Your task to perform on an android device: Check out the new nike air max 2020. Image 0: 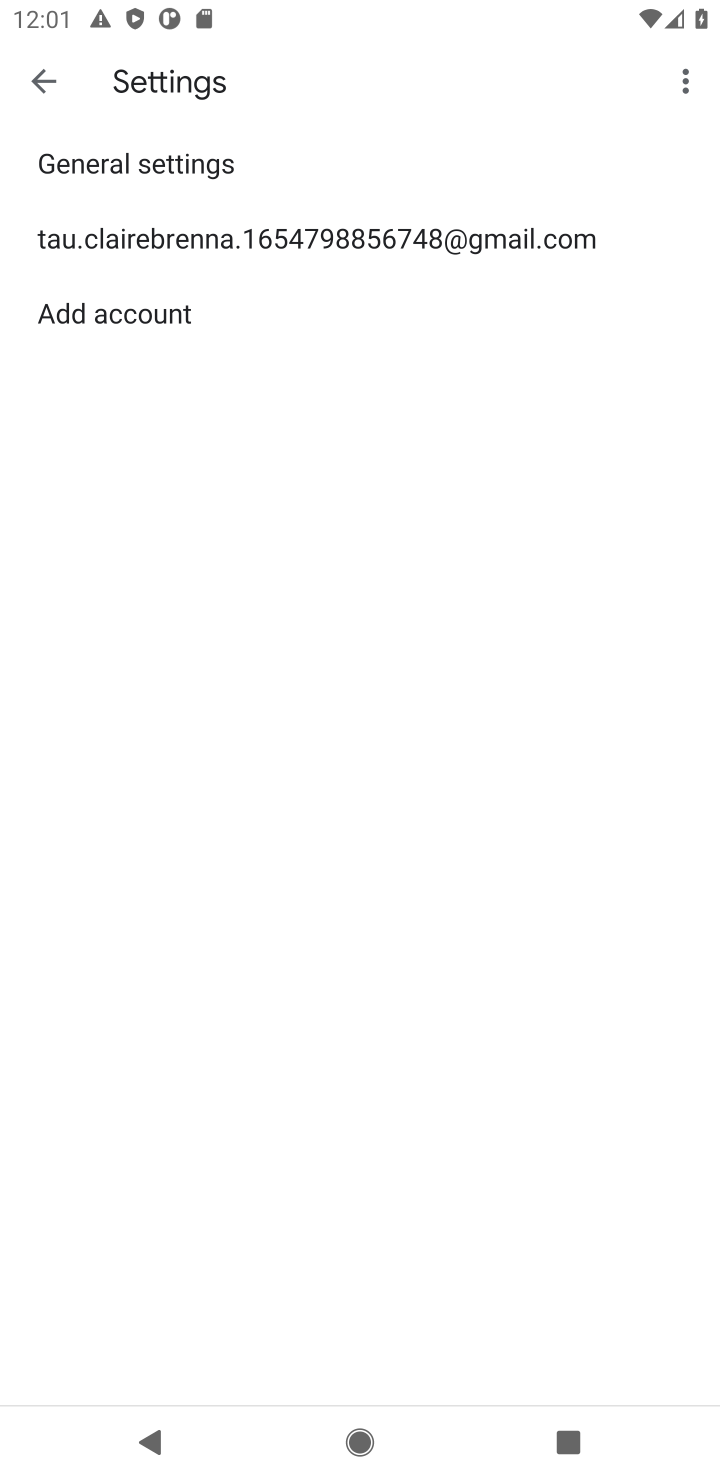
Step 0: press home button
Your task to perform on an android device: Check out the new nike air max 2020. Image 1: 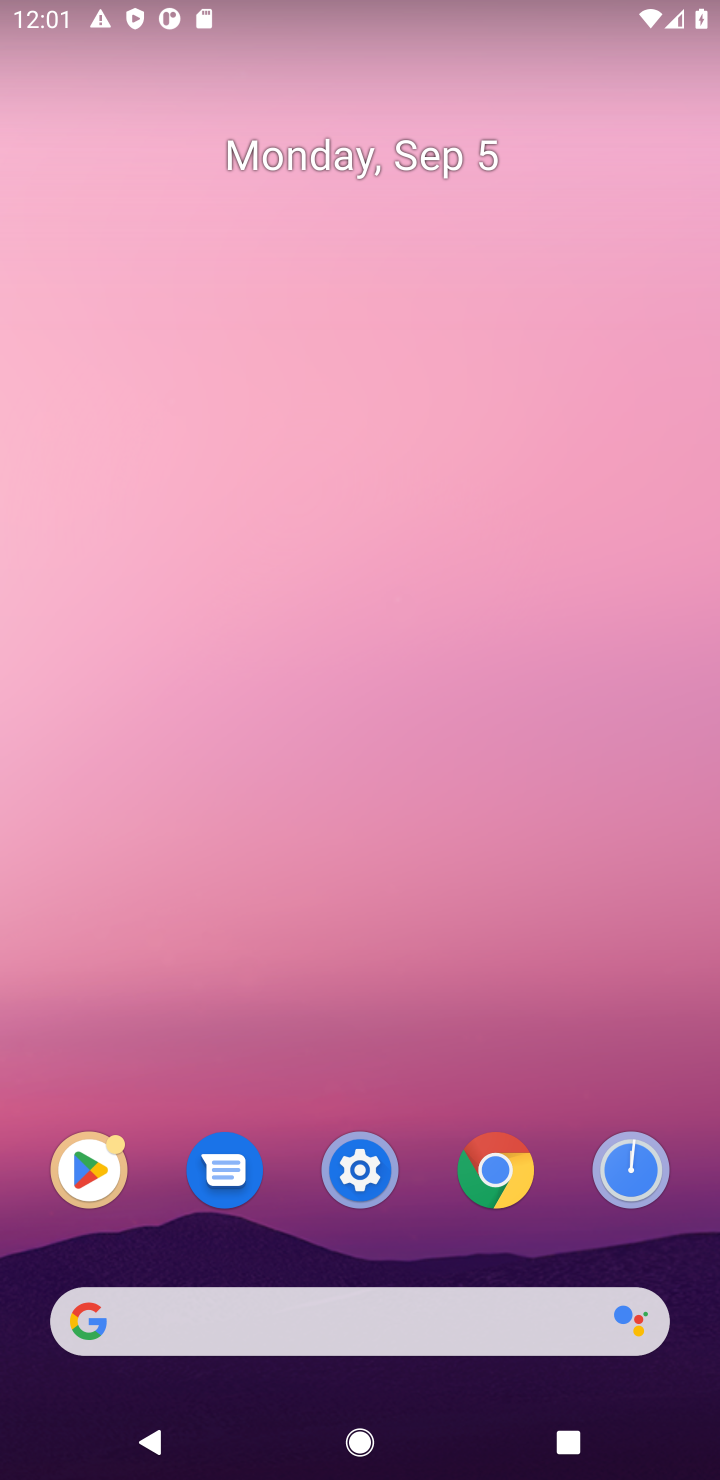
Step 1: click (453, 1289)
Your task to perform on an android device: Check out the new nike air max 2020. Image 2: 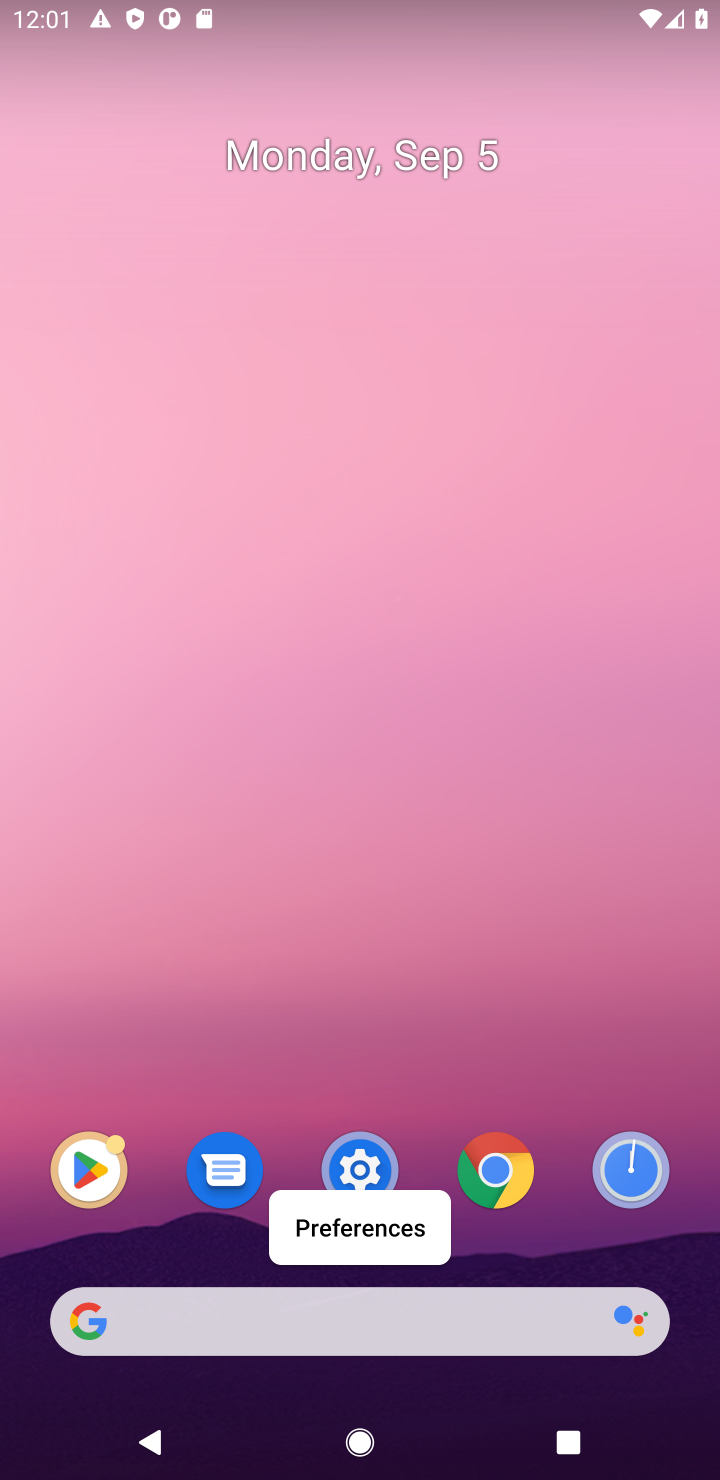
Step 2: click (359, 1297)
Your task to perform on an android device: Check out the new nike air max 2020. Image 3: 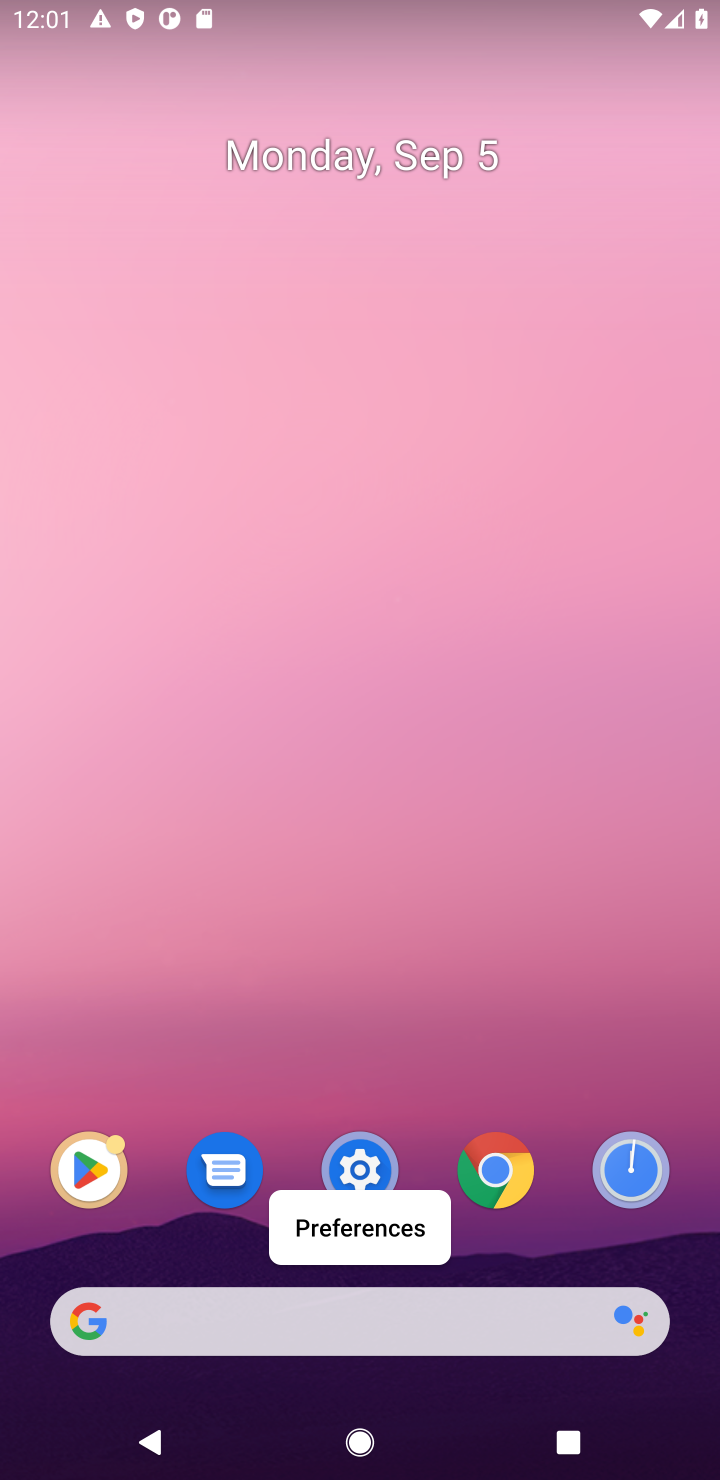
Step 3: click (372, 1321)
Your task to perform on an android device: Check out the new nike air max 2020. Image 4: 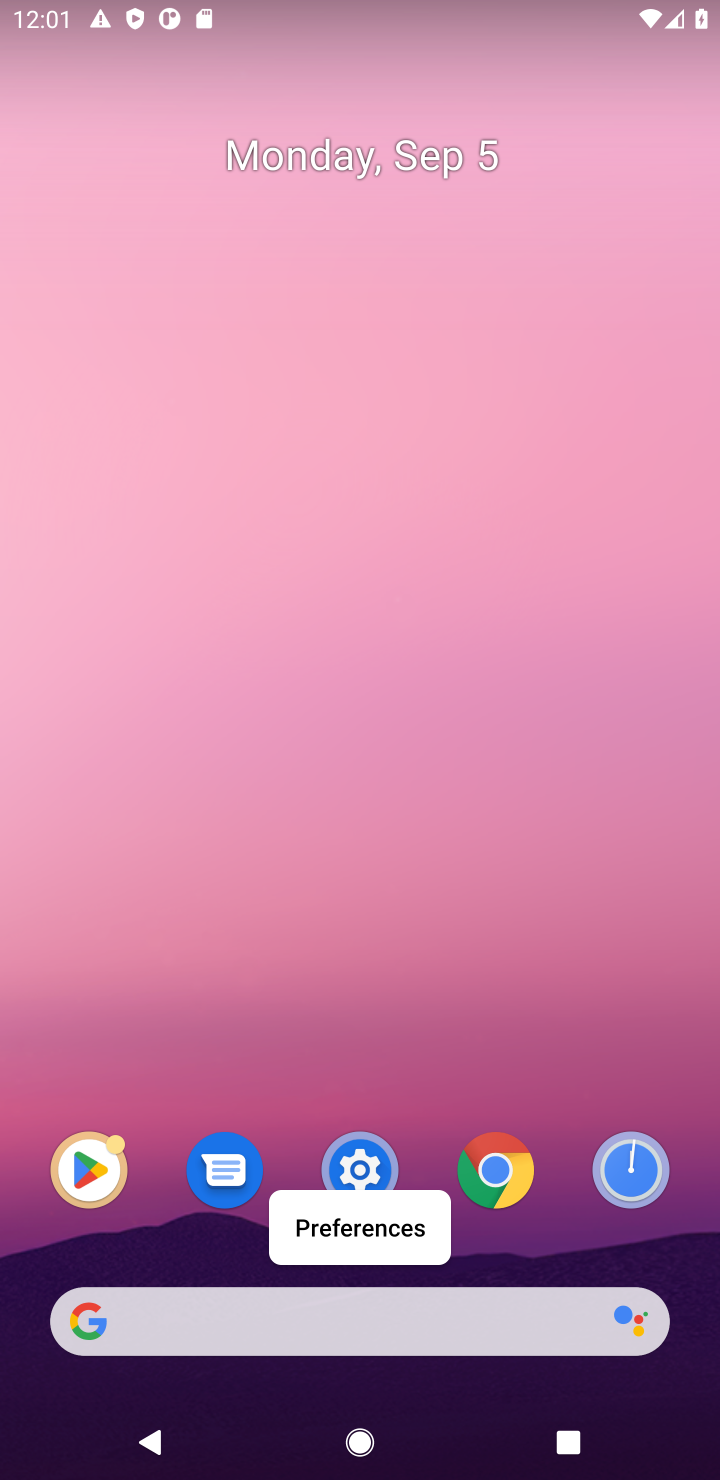
Step 4: click (372, 1321)
Your task to perform on an android device: Check out the new nike air max 2020. Image 5: 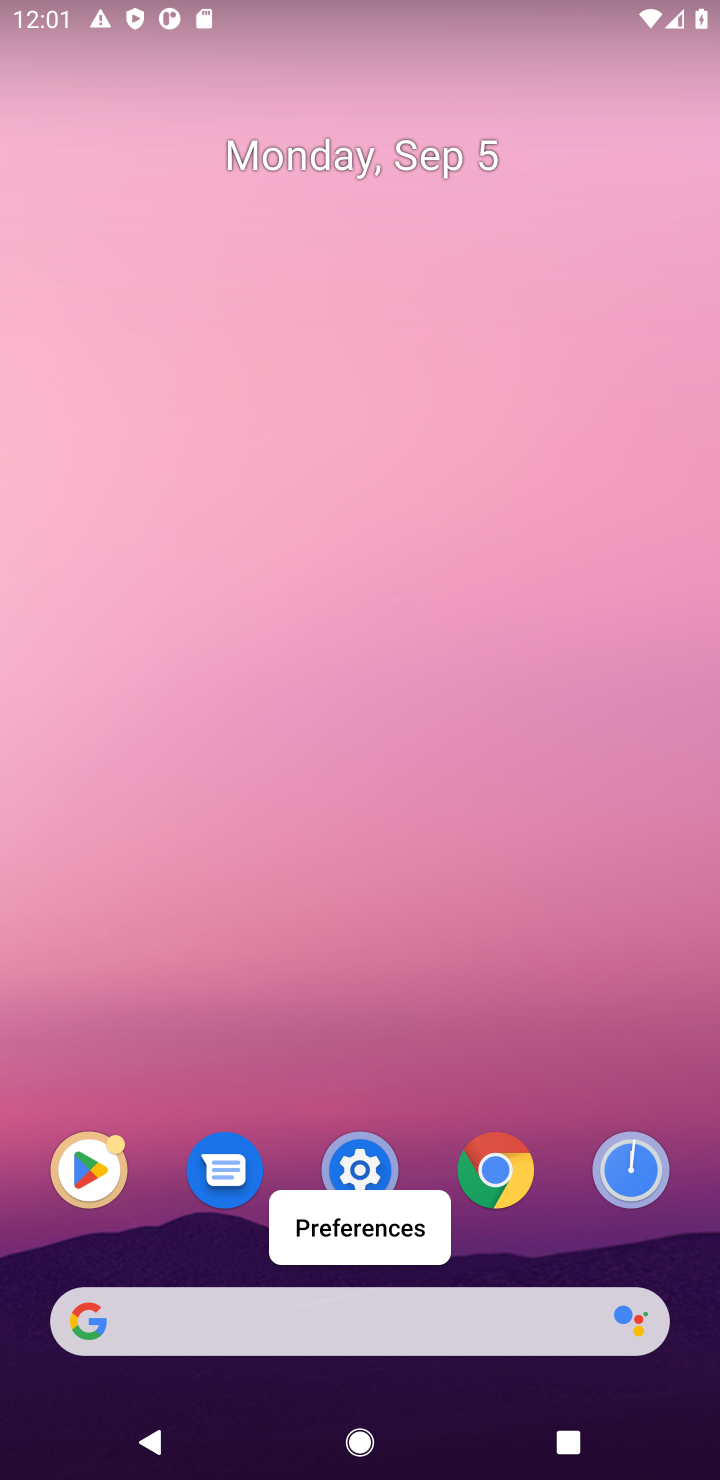
Step 5: click (372, 1320)
Your task to perform on an android device: Check out the new nike air max 2020. Image 6: 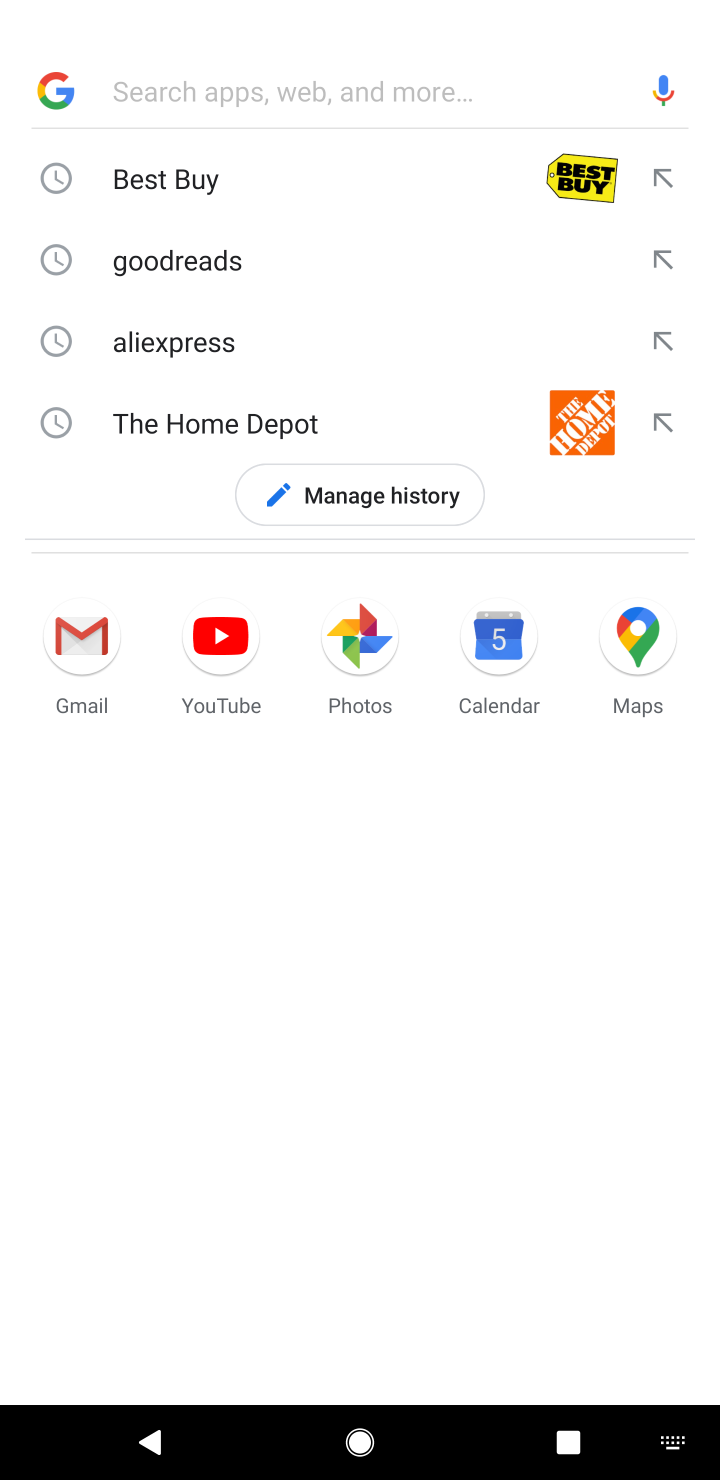
Step 6: type "new nike air max 2020"
Your task to perform on an android device: Check out the new nike air max 2020. Image 7: 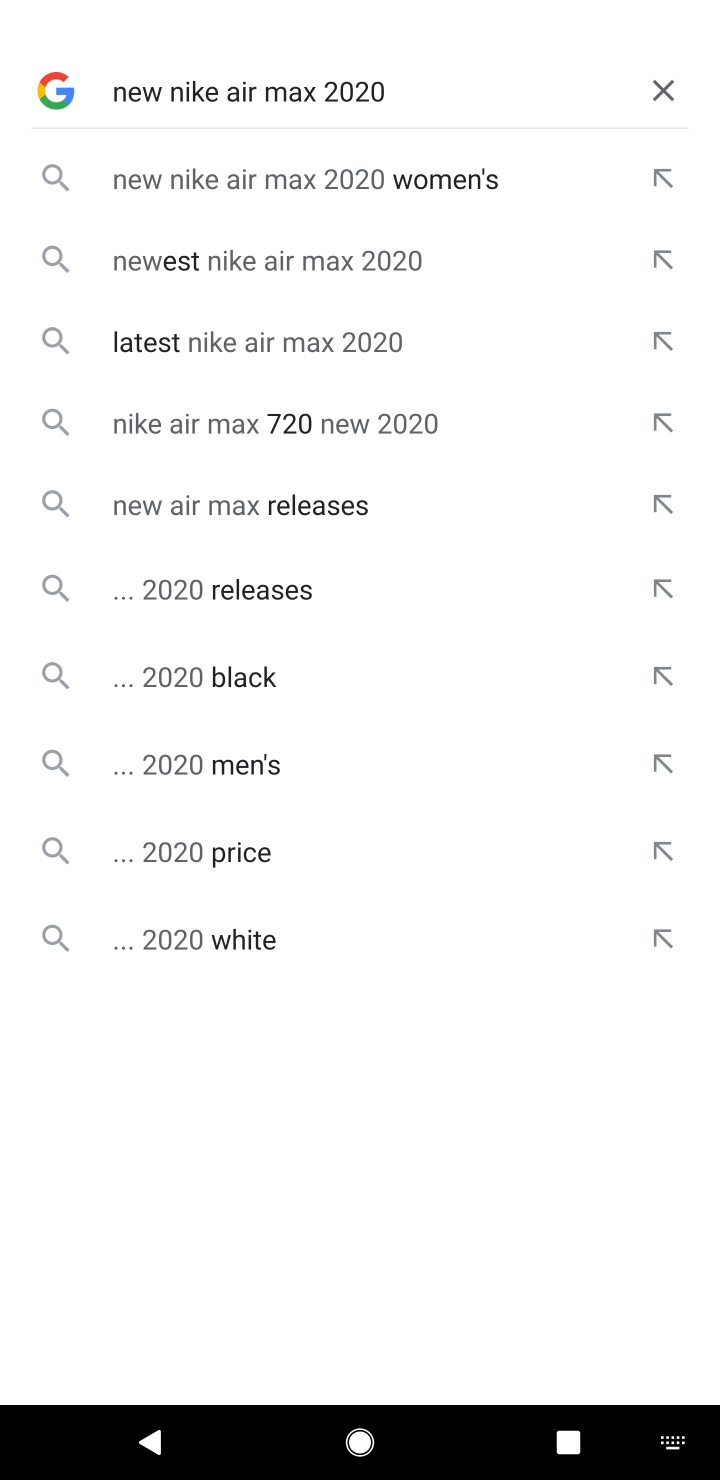
Step 7: click (358, 269)
Your task to perform on an android device: Check out the new nike air max 2020. Image 8: 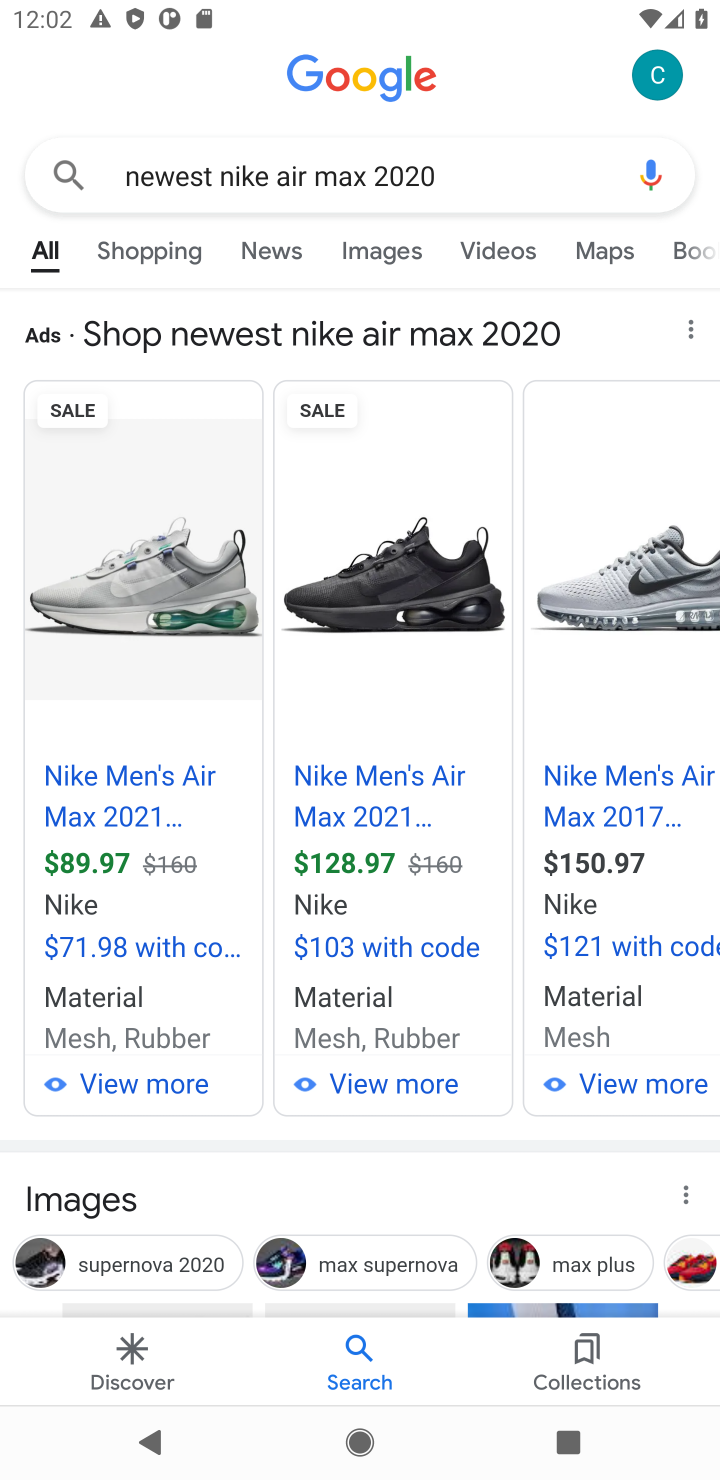
Step 8: task complete